Your task to perform on an android device: turn off location history Image 0: 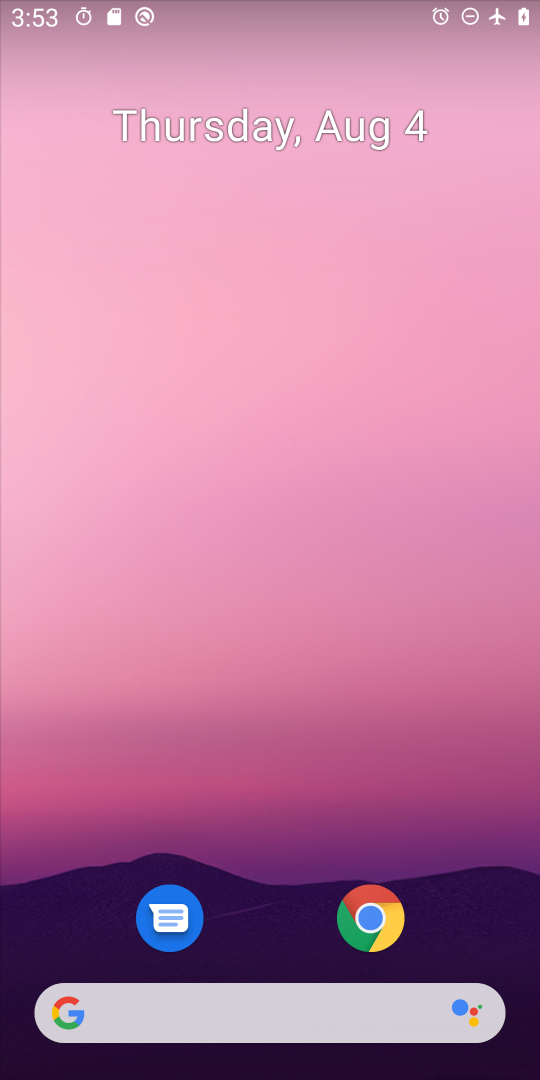
Step 0: drag from (273, 834) to (261, 326)
Your task to perform on an android device: turn off location history Image 1: 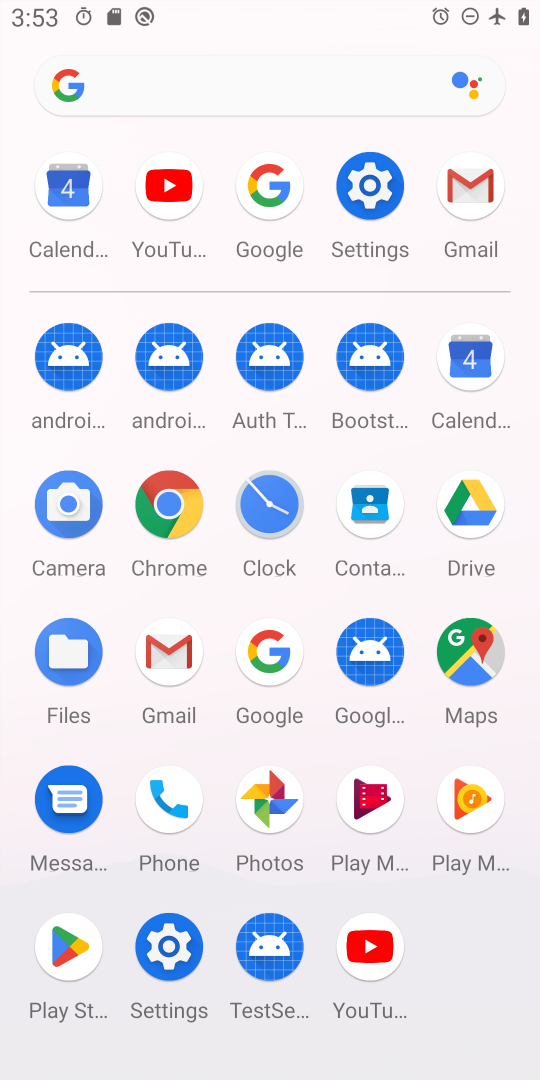
Step 1: click (379, 181)
Your task to perform on an android device: turn off location history Image 2: 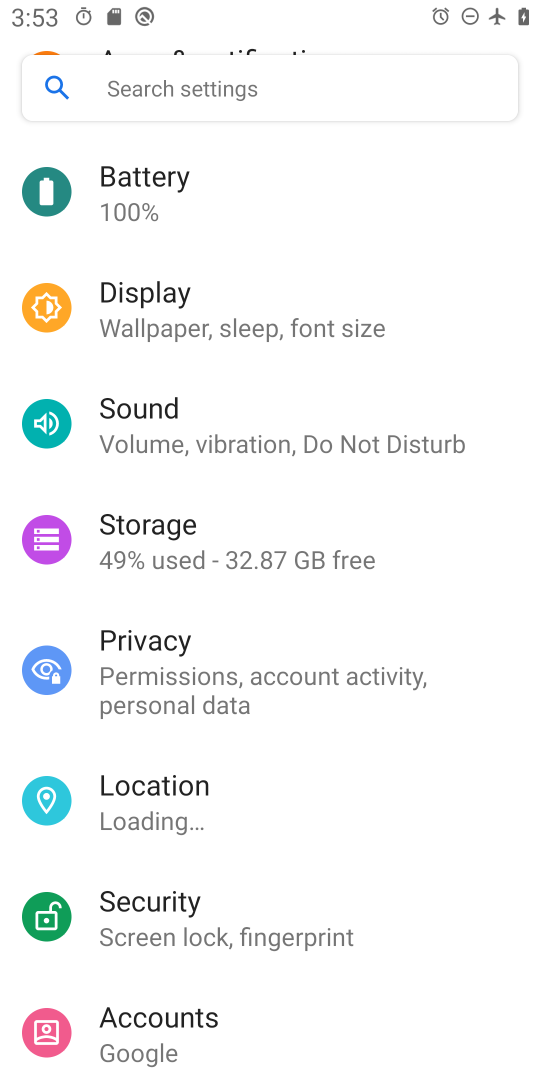
Step 2: click (212, 785)
Your task to perform on an android device: turn off location history Image 3: 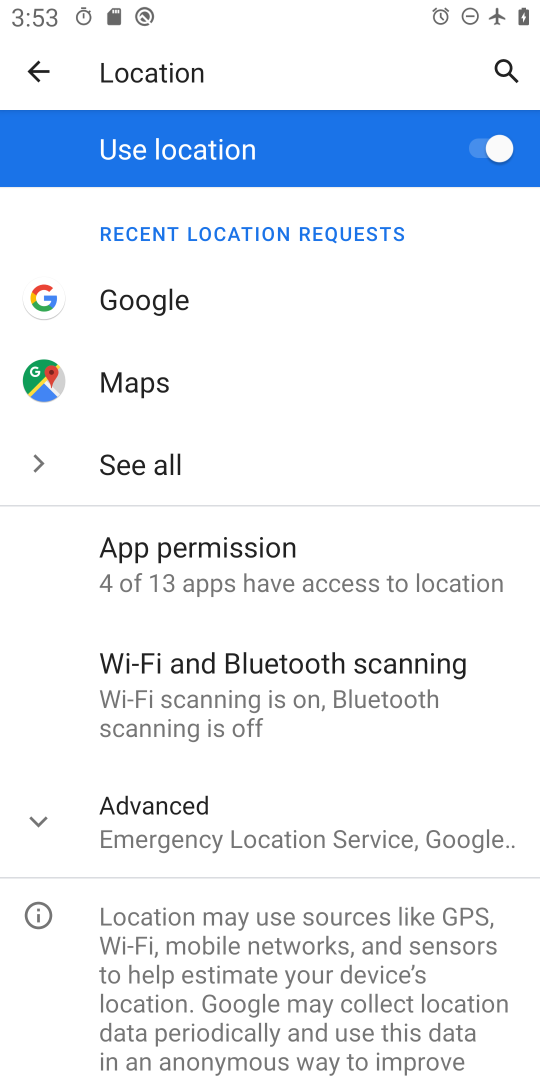
Step 3: click (259, 847)
Your task to perform on an android device: turn off location history Image 4: 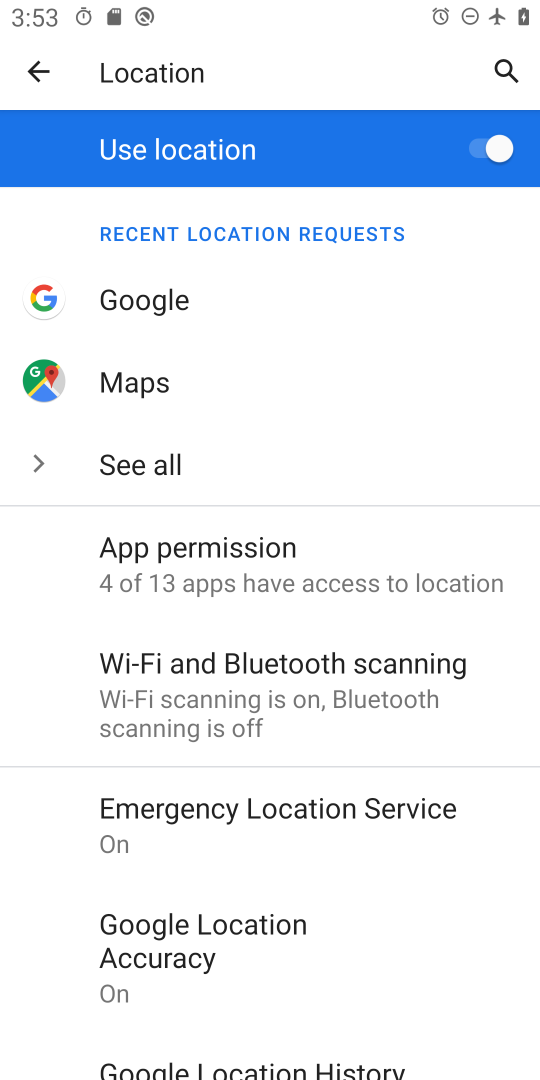
Step 4: drag from (248, 1002) to (278, 518)
Your task to perform on an android device: turn off location history Image 5: 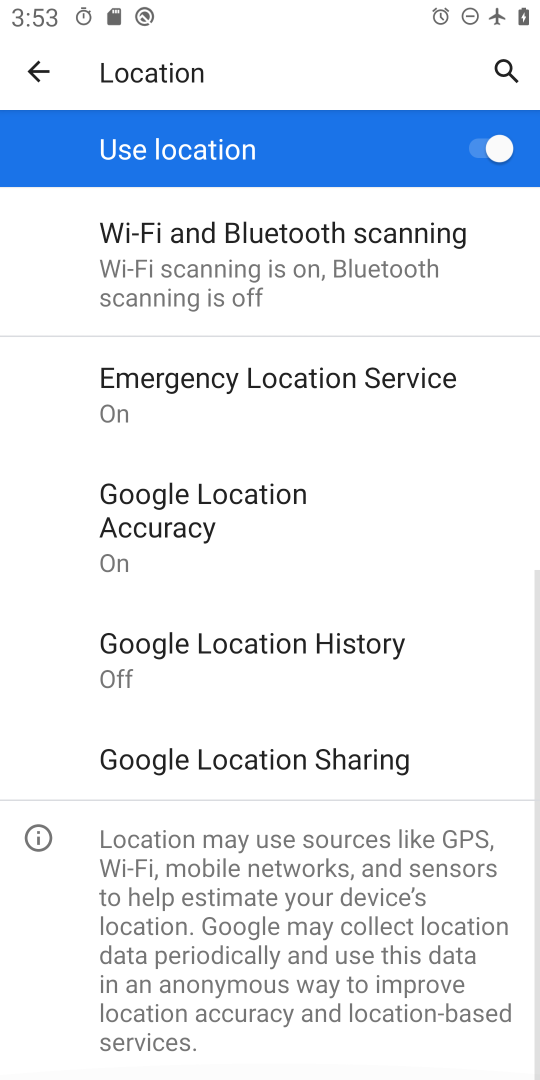
Step 5: click (279, 652)
Your task to perform on an android device: turn off location history Image 6: 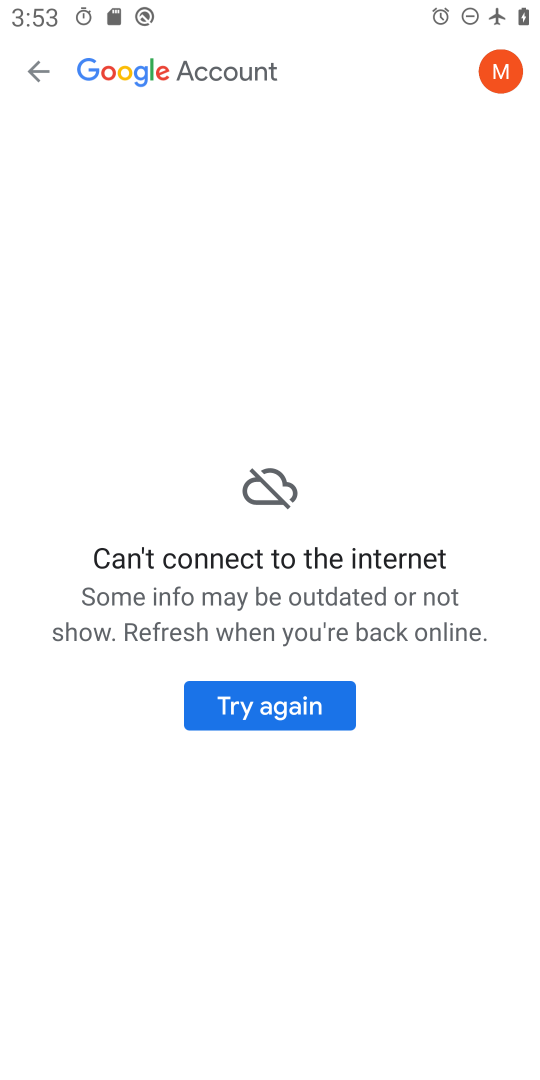
Step 6: task complete